Your task to perform on an android device: turn on data saver in the chrome app Image 0: 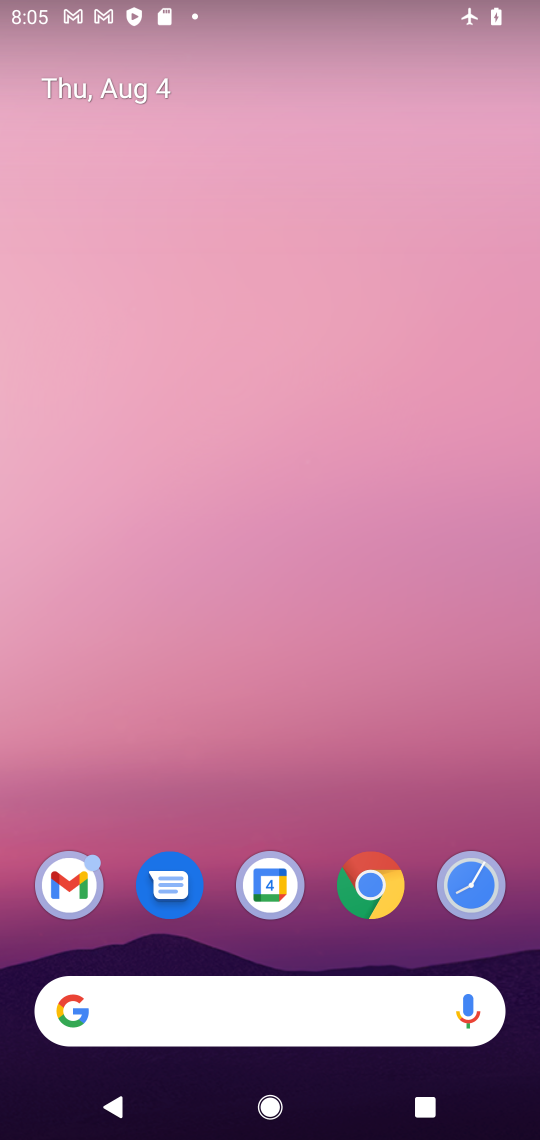
Step 0: press home button
Your task to perform on an android device: turn on data saver in the chrome app Image 1: 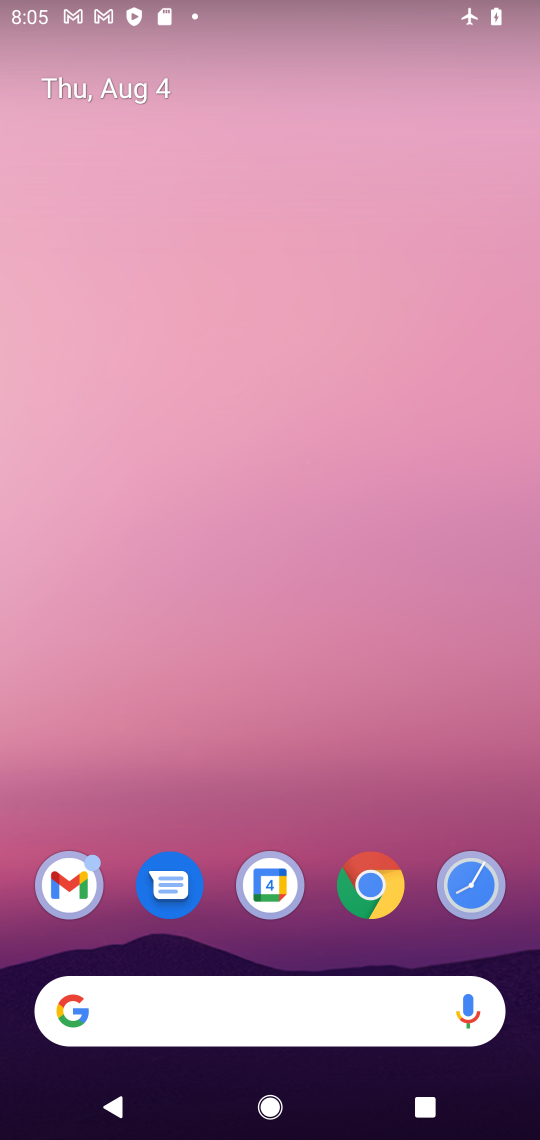
Step 1: click (365, 920)
Your task to perform on an android device: turn on data saver in the chrome app Image 2: 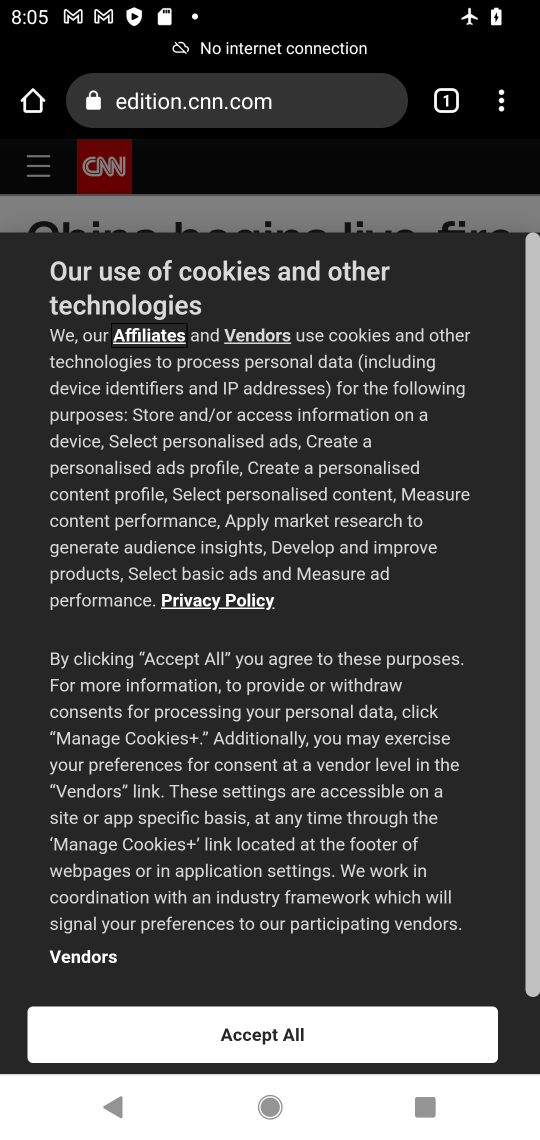
Step 2: drag from (507, 93) to (212, 964)
Your task to perform on an android device: turn on data saver in the chrome app Image 3: 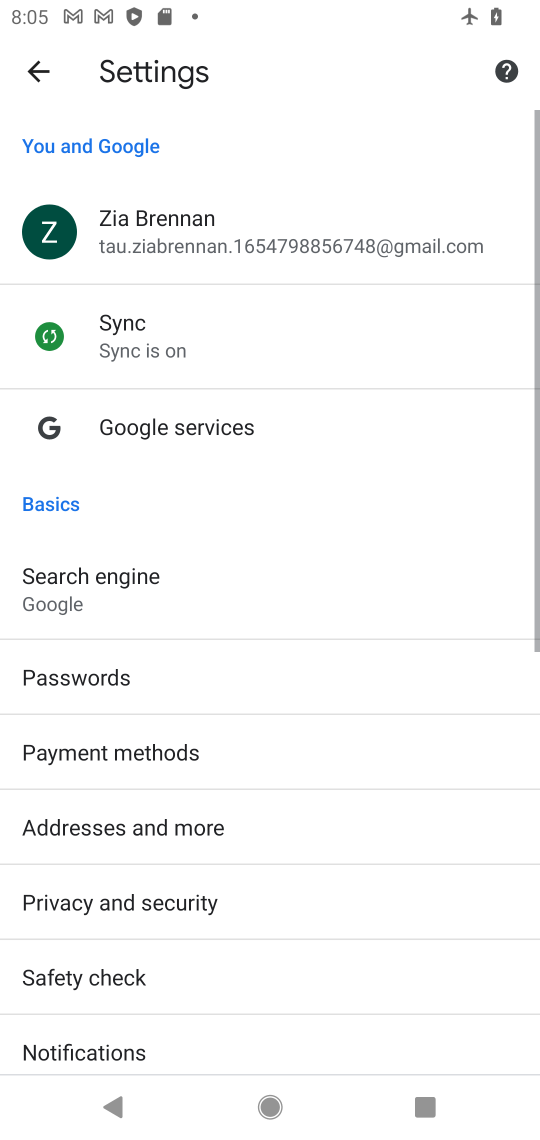
Step 3: drag from (354, 979) to (187, 97)
Your task to perform on an android device: turn on data saver in the chrome app Image 4: 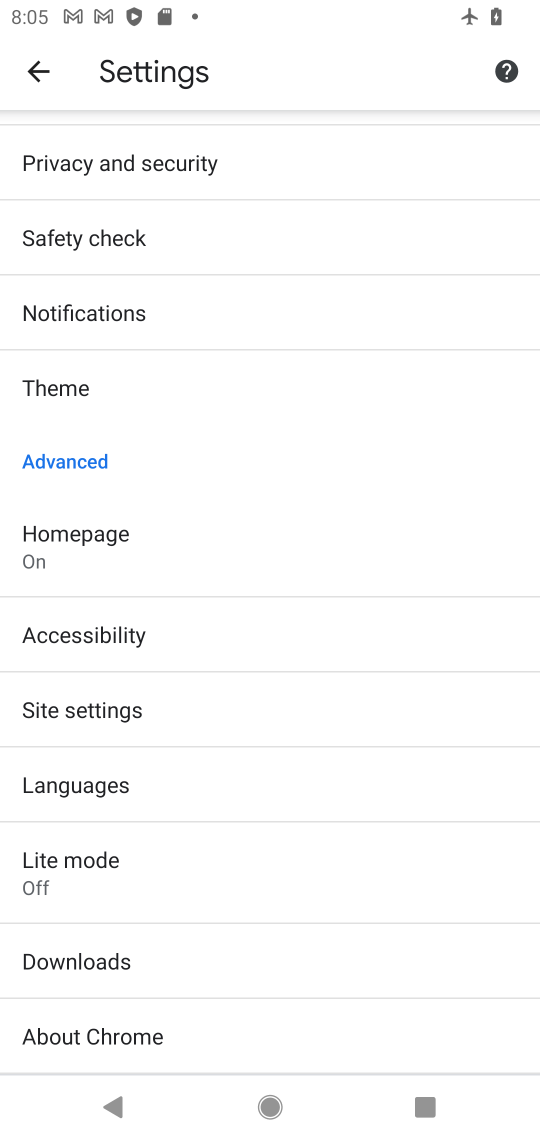
Step 4: click (157, 884)
Your task to perform on an android device: turn on data saver in the chrome app Image 5: 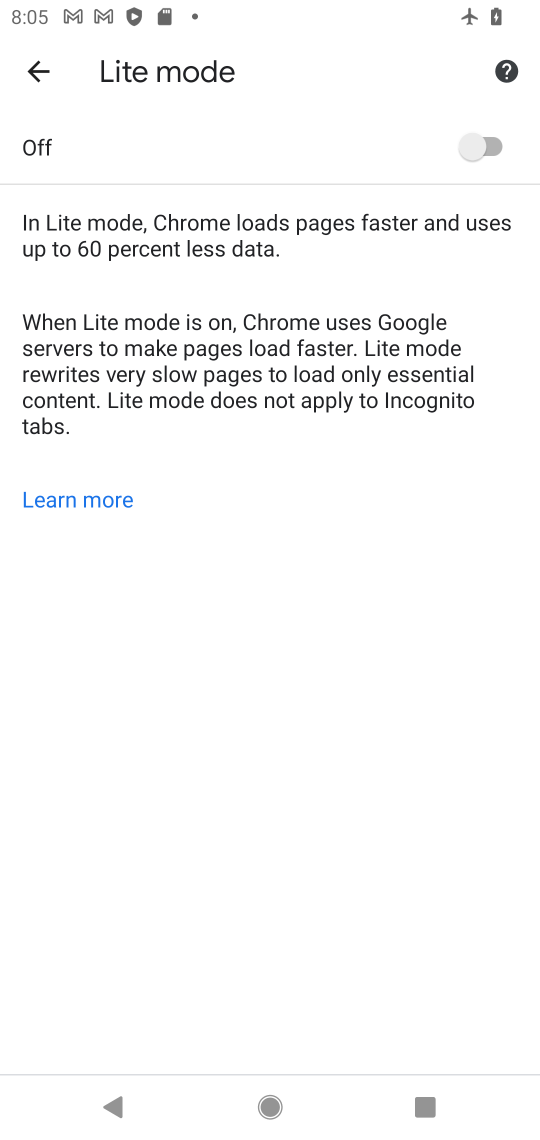
Step 5: click (297, 146)
Your task to perform on an android device: turn on data saver in the chrome app Image 6: 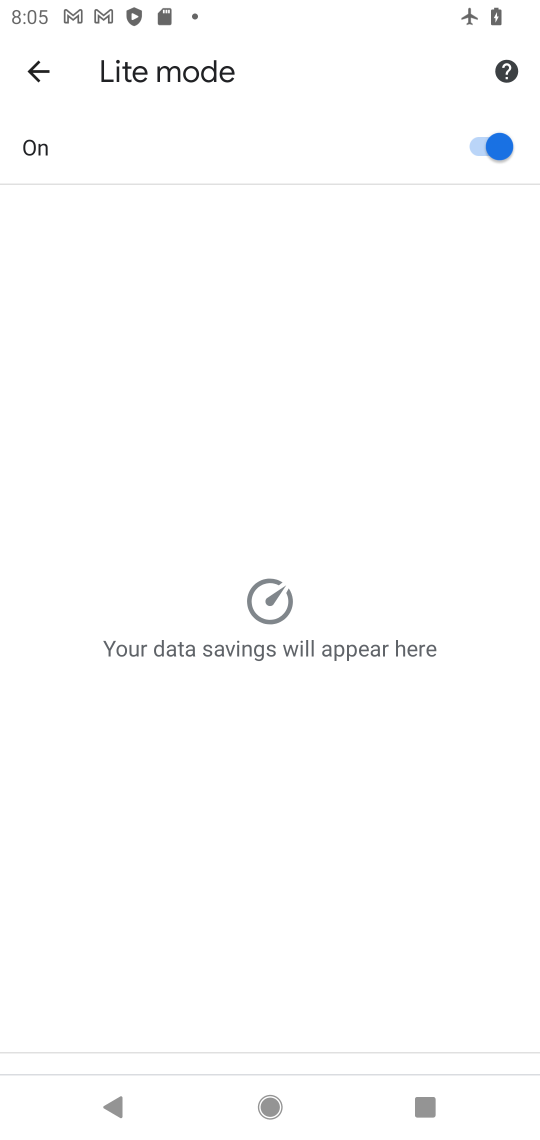
Step 6: task complete